Your task to perform on an android device: visit the assistant section in the google photos Image 0: 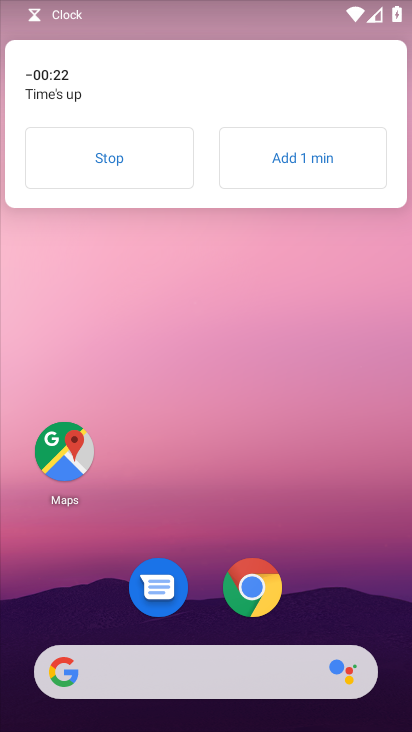
Step 0: click (101, 162)
Your task to perform on an android device: visit the assistant section in the google photos Image 1: 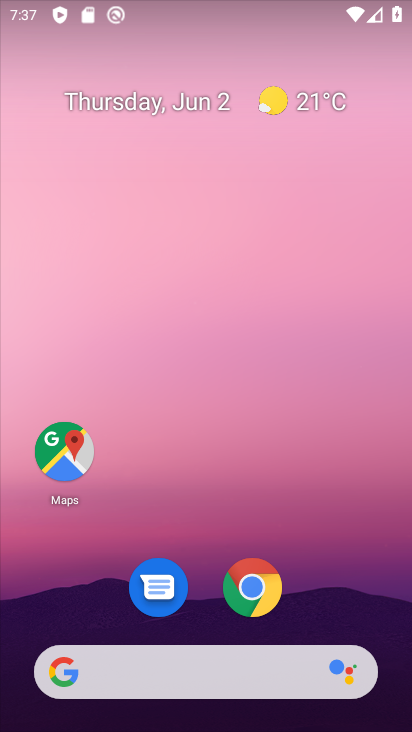
Step 1: drag from (369, 620) to (342, 28)
Your task to perform on an android device: visit the assistant section in the google photos Image 2: 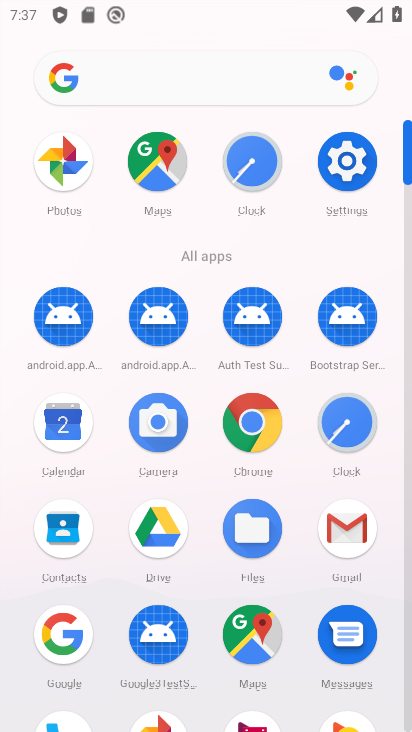
Step 2: click (59, 177)
Your task to perform on an android device: visit the assistant section in the google photos Image 3: 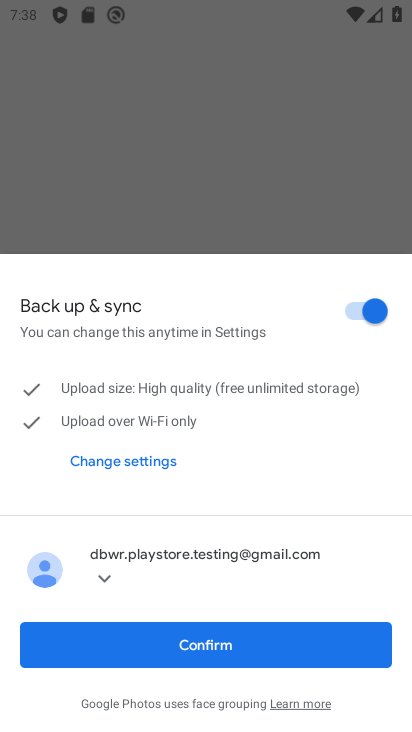
Step 3: click (210, 653)
Your task to perform on an android device: visit the assistant section in the google photos Image 4: 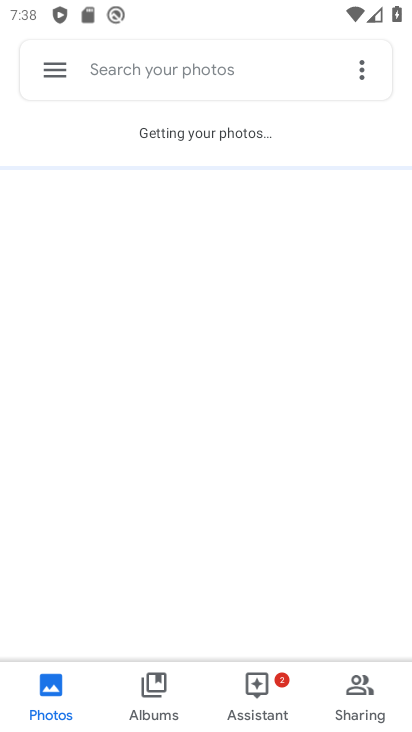
Step 4: click (269, 693)
Your task to perform on an android device: visit the assistant section in the google photos Image 5: 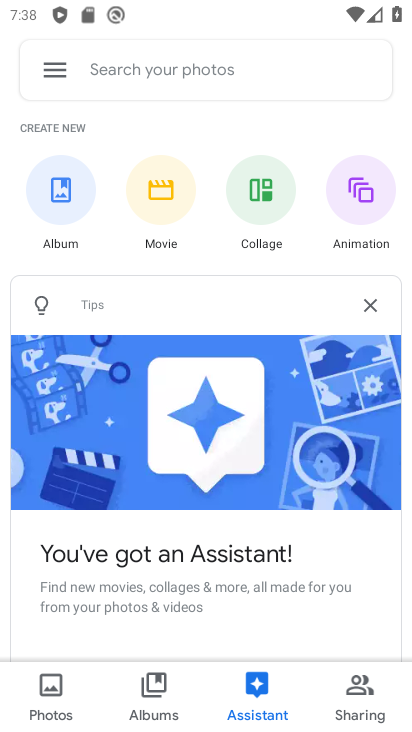
Step 5: task complete